Your task to perform on an android device: set default search engine in the chrome app Image 0: 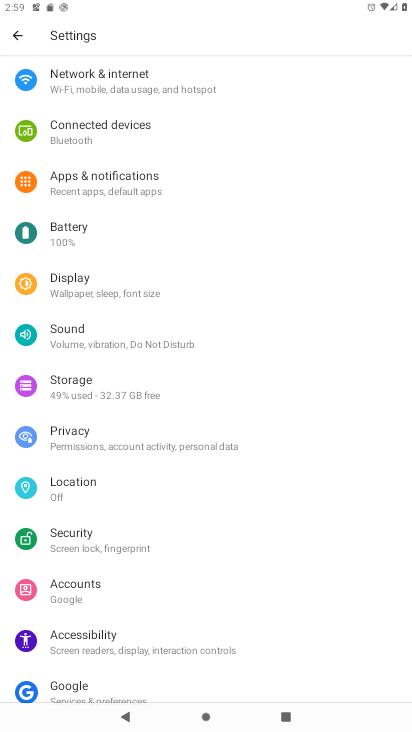
Step 0: press home button
Your task to perform on an android device: set default search engine in the chrome app Image 1: 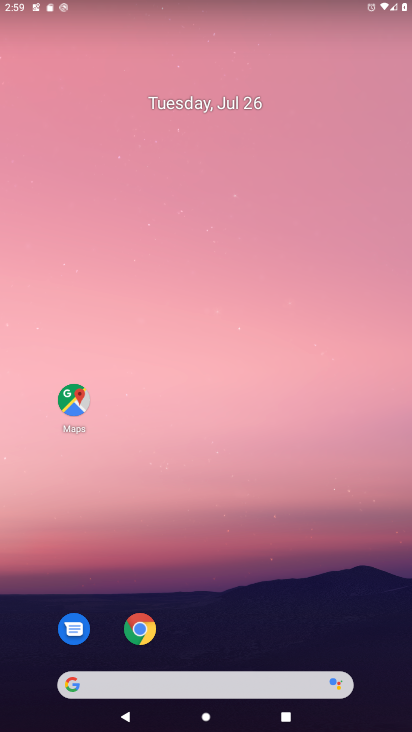
Step 1: click (124, 616)
Your task to perform on an android device: set default search engine in the chrome app Image 2: 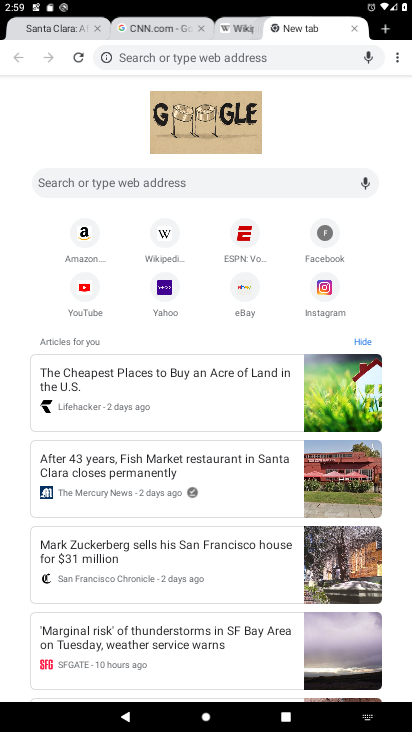
Step 2: click (393, 62)
Your task to perform on an android device: set default search engine in the chrome app Image 3: 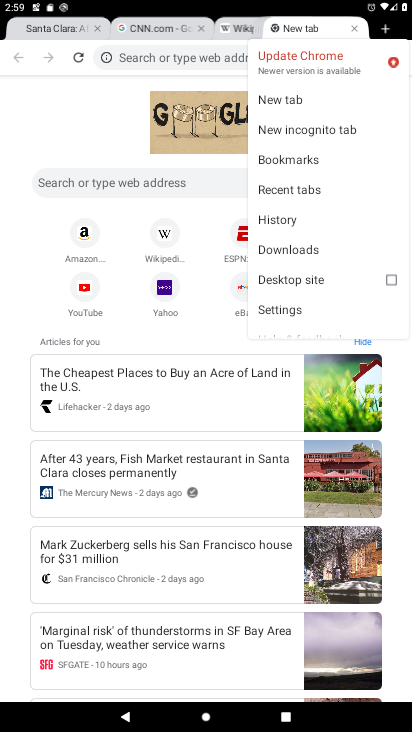
Step 3: click (296, 312)
Your task to perform on an android device: set default search engine in the chrome app Image 4: 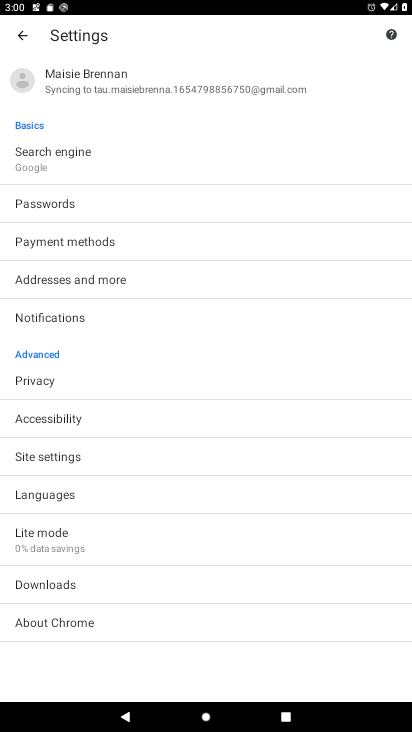
Step 4: click (94, 159)
Your task to perform on an android device: set default search engine in the chrome app Image 5: 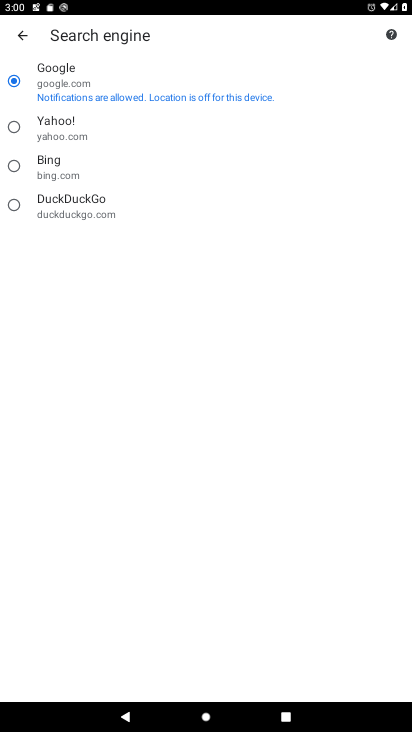
Step 5: task complete